Your task to perform on an android device: open sync settings in chrome Image 0: 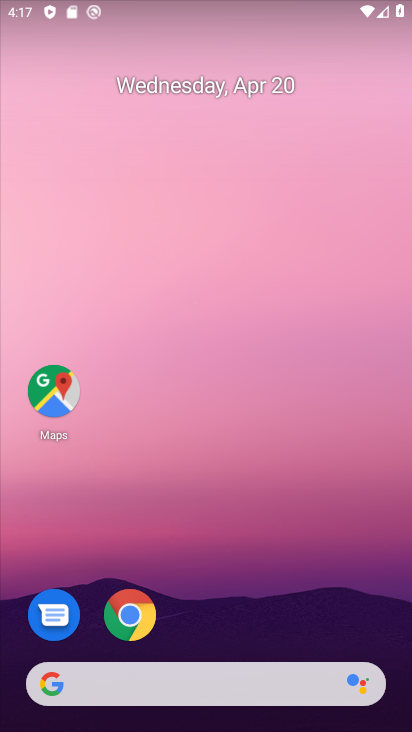
Step 0: click (140, 605)
Your task to perform on an android device: open sync settings in chrome Image 1: 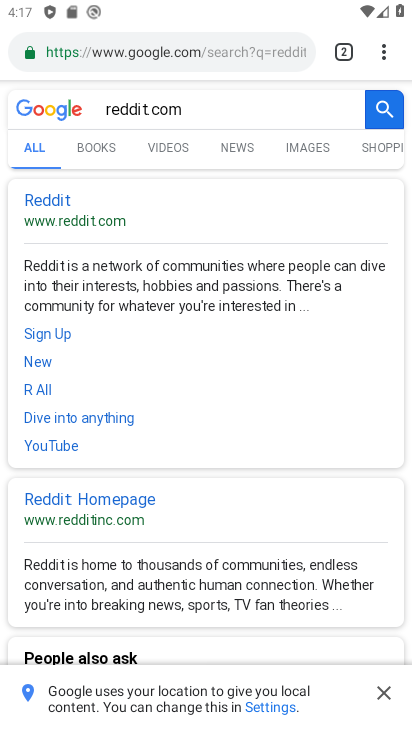
Step 1: click (386, 55)
Your task to perform on an android device: open sync settings in chrome Image 2: 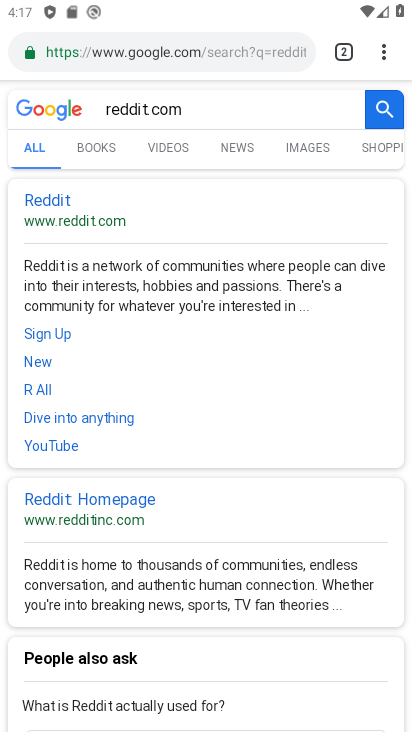
Step 2: click (380, 56)
Your task to perform on an android device: open sync settings in chrome Image 3: 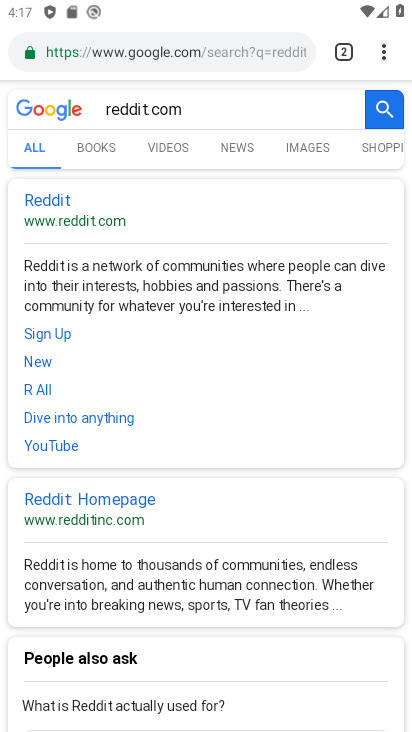
Step 3: click (378, 58)
Your task to perform on an android device: open sync settings in chrome Image 4: 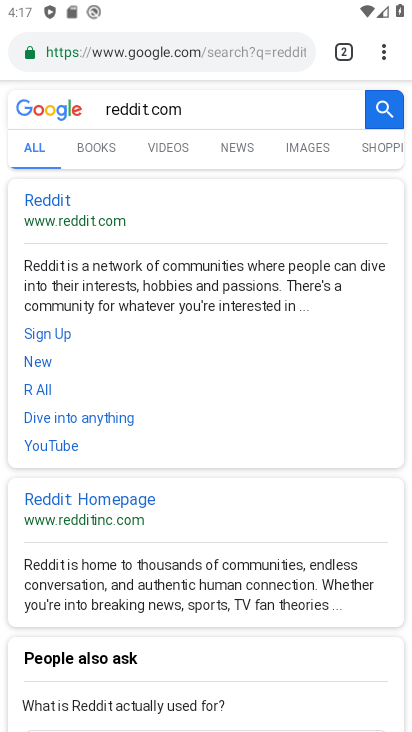
Step 4: click (381, 64)
Your task to perform on an android device: open sync settings in chrome Image 5: 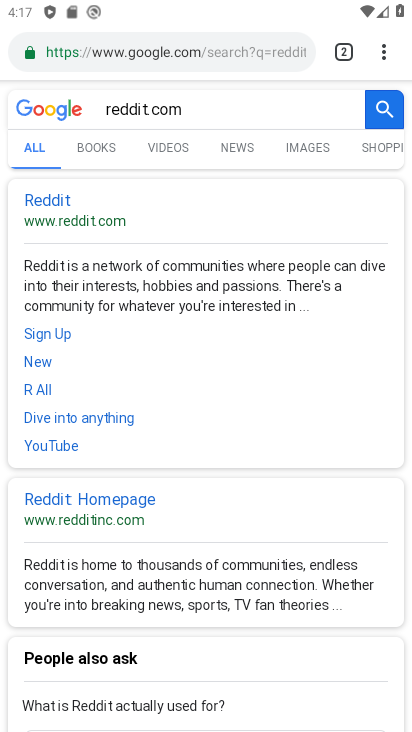
Step 5: click (384, 66)
Your task to perform on an android device: open sync settings in chrome Image 6: 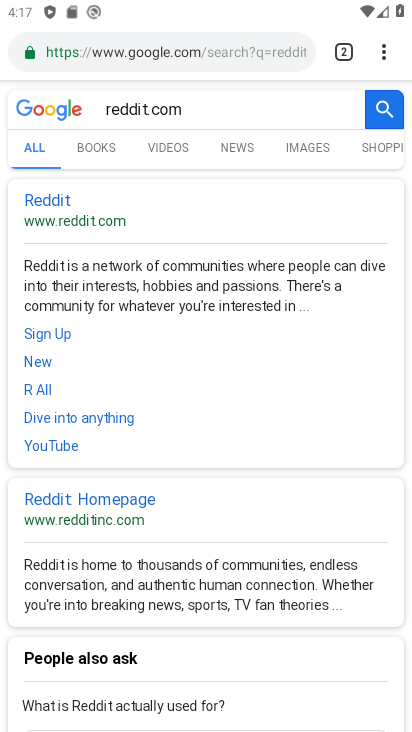
Step 6: click (396, 49)
Your task to perform on an android device: open sync settings in chrome Image 7: 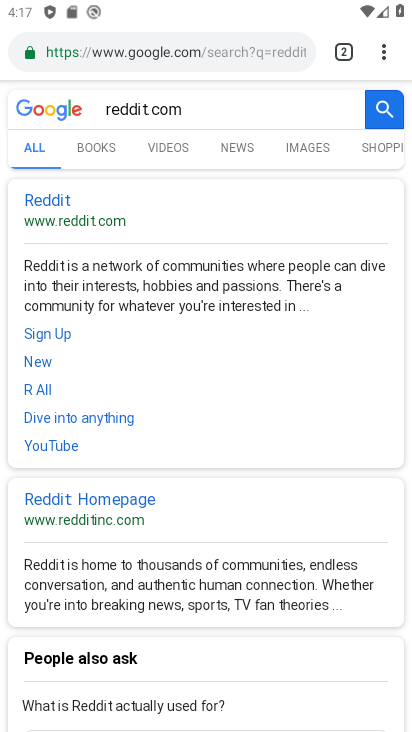
Step 7: click (378, 61)
Your task to perform on an android device: open sync settings in chrome Image 8: 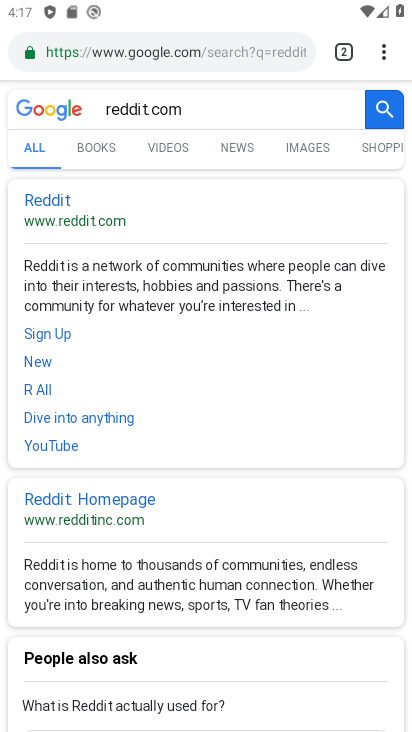
Step 8: click (383, 56)
Your task to perform on an android device: open sync settings in chrome Image 9: 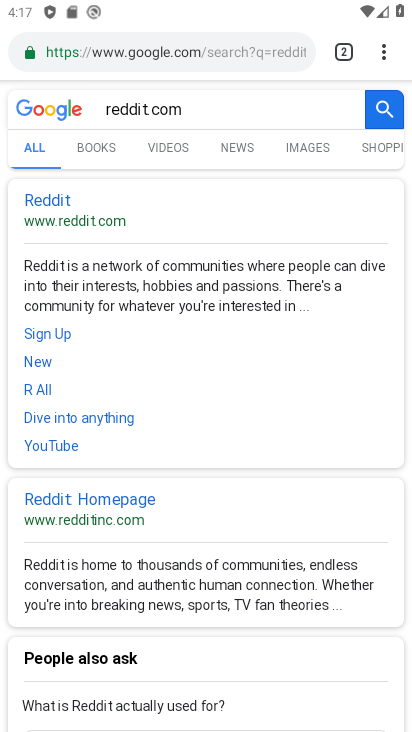
Step 9: click (384, 46)
Your task to perform on an android device: open sync settings in chrome Image 10: 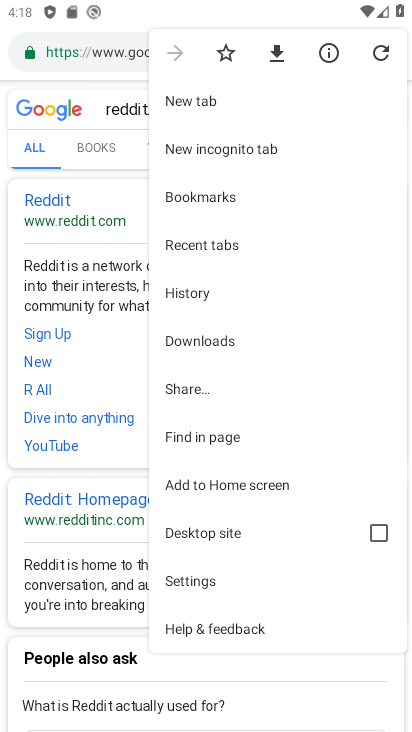
Step 10: click (199, 581)
Your task to perform on an android device: open sync settings in chrome Image 11: 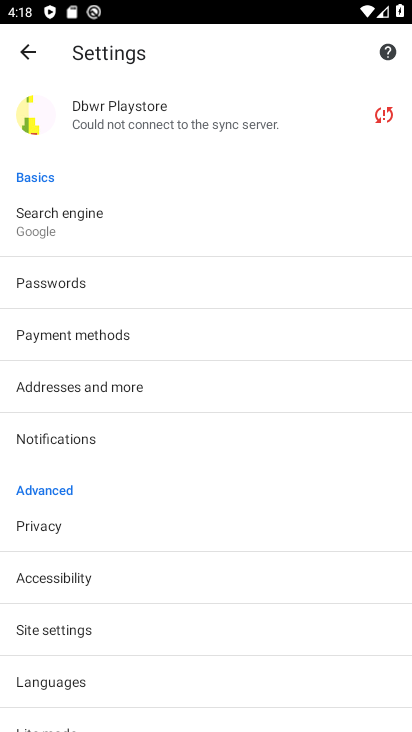
Step 11: click (182, 123)
Your task to perform on an android device: open sync settings in chrome Image 12: 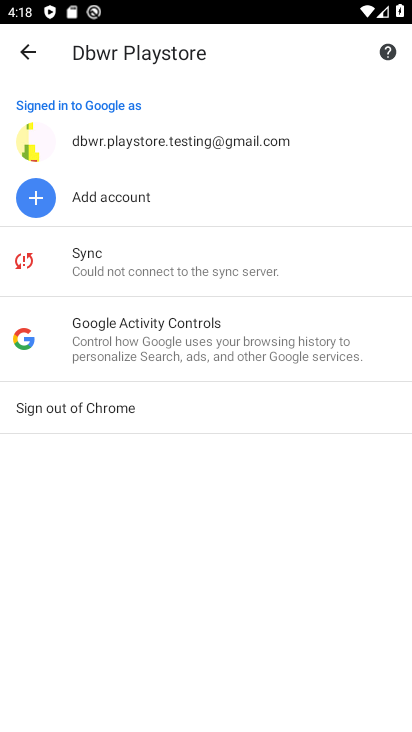
Step 12: click (139, 278)
Your task to perform on an android device: open sync settings in chrome Image 13: 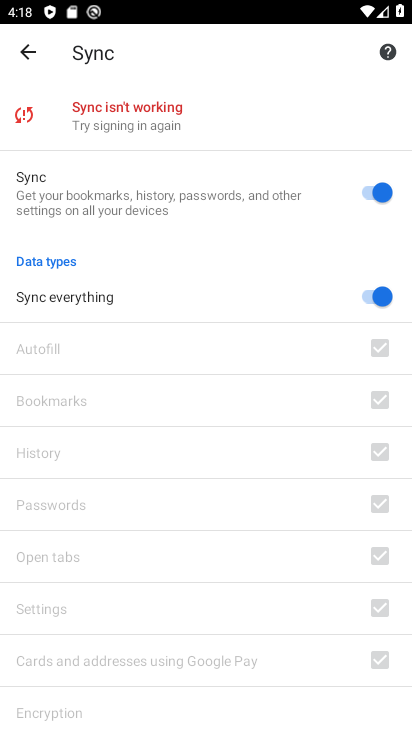
Step 13: task complete